Your task to perform on an android device: move an email to a new category in the gmail app Image 0: 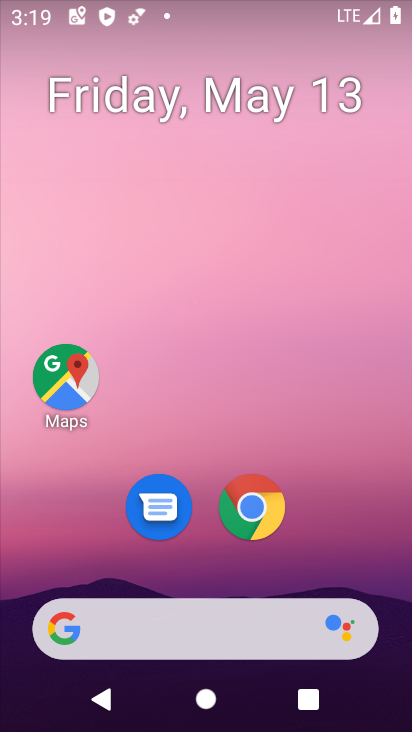
Step 0: drag from (334, 352) to (331, 224)
Your task to perform on an android device: move an email to a new category in the gmail app Image 1: 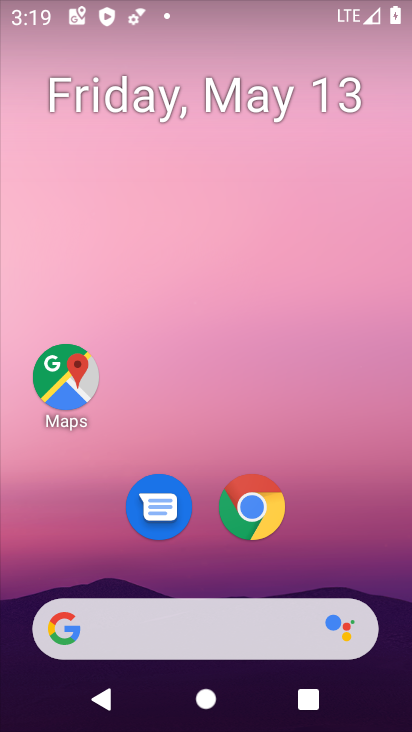
Step 1: drag from (321, 439) to (317, 22)
Your task to perform on an android device: move an email to a new category in the gmail app Image 2: 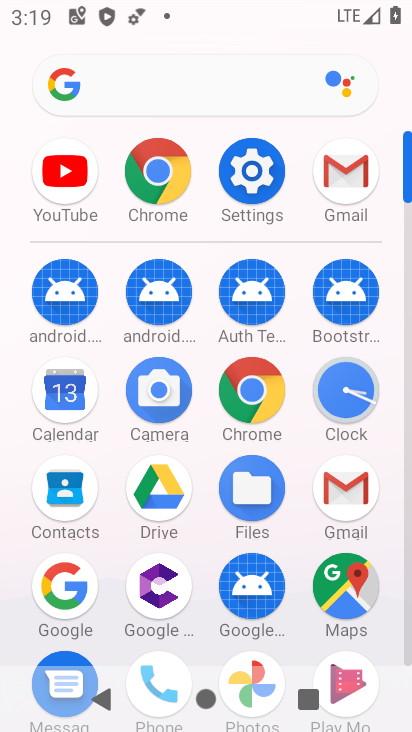
Step 2: click (350, 179)
Your task to perform on an android device: move an email to a new category in the gmail app Image 3: 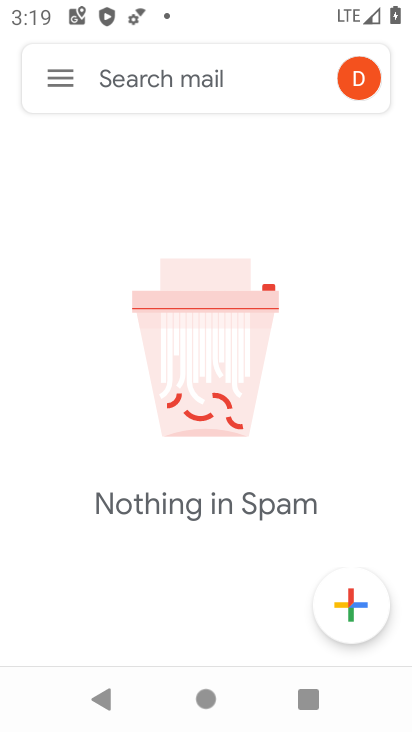
Step 3: click (84, 82)
Your task to perform on an android device: move an email to a new category in the gmail app Image 4: 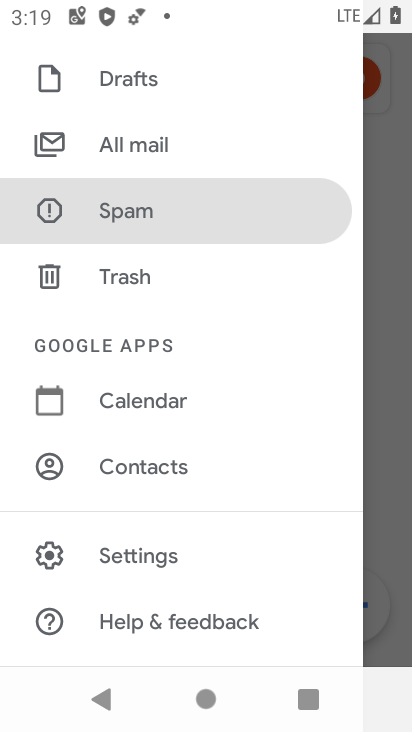
Step 4: drag from (246, 249) to (262, 33)
Your task to perform on an android device: move an email to a new category in the gmail app Image 5: 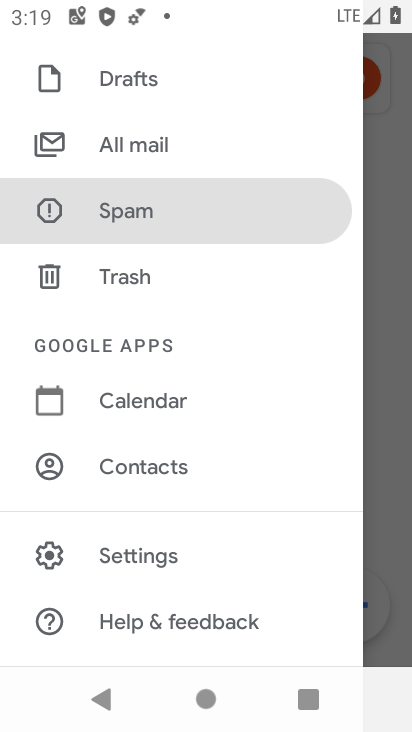
Step 5: click (127, 555)
Your task to perform on an android device: move an email to a new category in the gmail app Image 6: 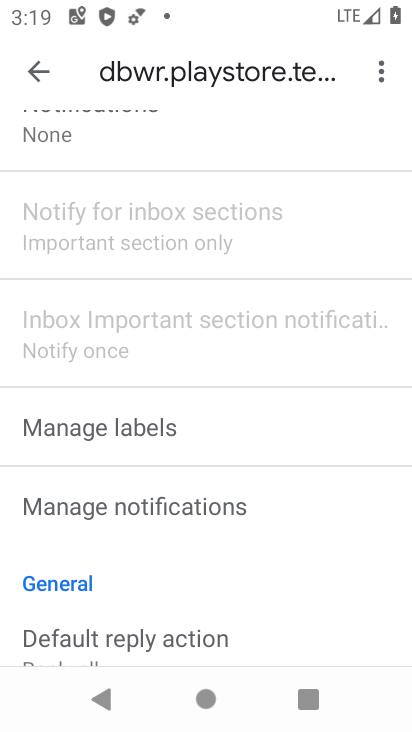
Step 6: task complete